Your task to perform on an android device: Go to Android settings Image 0: 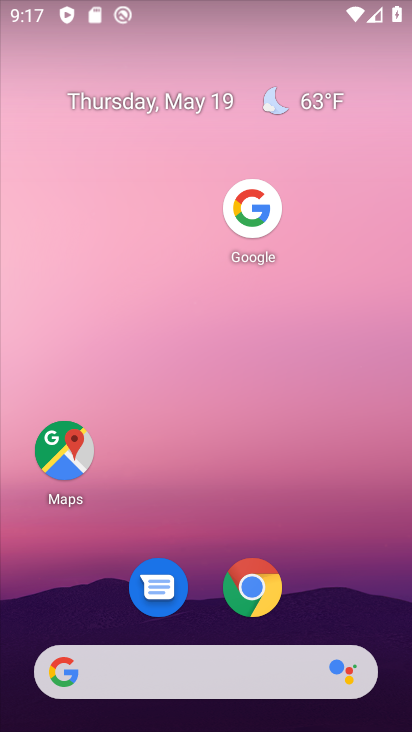
Step 0: drag from (206, 631) to (159, 72)
Your task to perform on an android device: Go to Android settings Image 1: 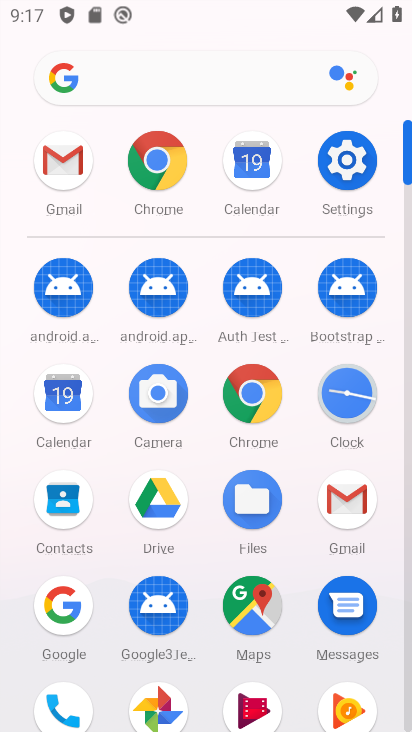
Step 1: click (354, 175)
Your task to perform on an android device: Go to Android settings Image 2: 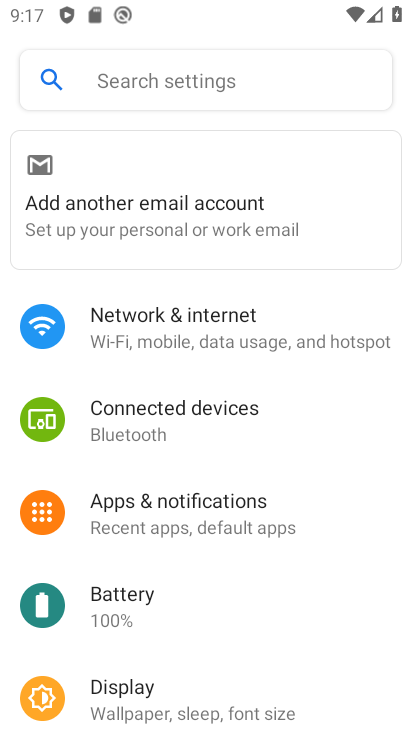
Step 2: task complete